Your task to perform on an android device: empty trash in the gmail app Image 0: 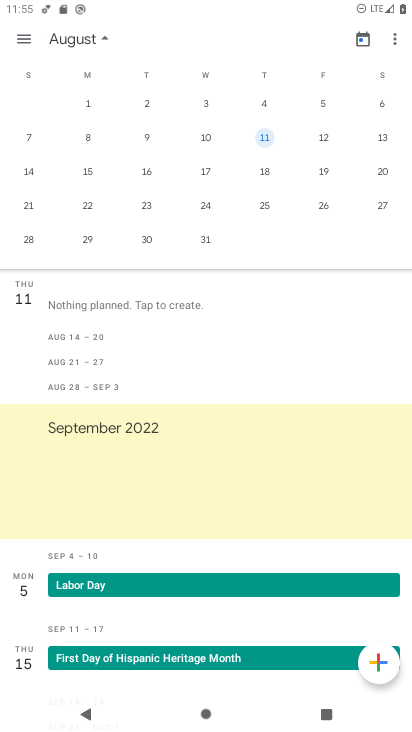
Step 0: press home button
Your task to perform on an android device: empty trash in the gmail app Image 1: 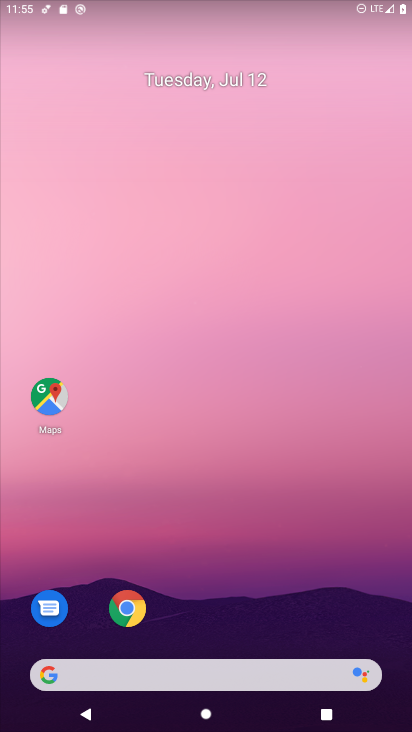
Step 1: drag from (225, 623) to (192, 267)
Your task to perform on an android device: empty trash in the gmail app Image 2: 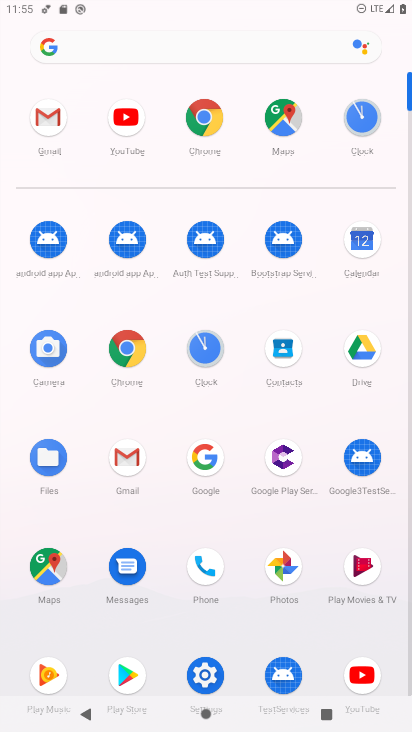
Step 2: click (36, 112)
Your task to perform on an android device: empty trash in the gmail app Image 3: 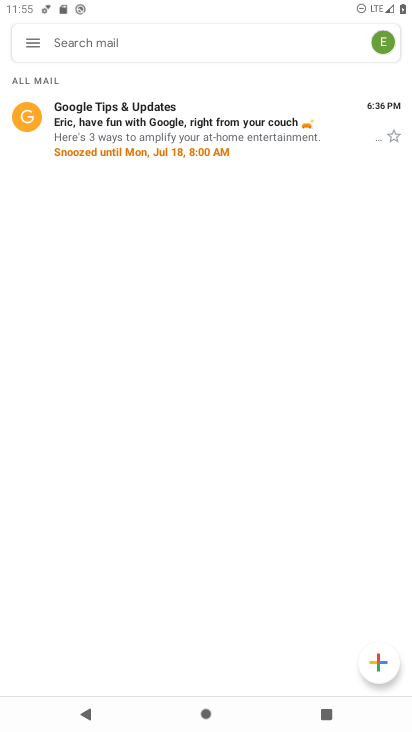
Step 3: click (35, 42)
Your task to perform on an android device: empty trash in the gmail app Image 4: 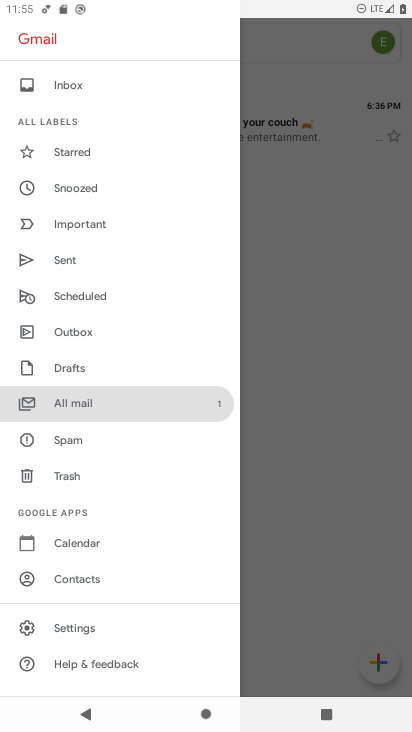
Step 4: click (66, 478)
Your task to perform on an android device: empty trash in the gmail app Image 5: 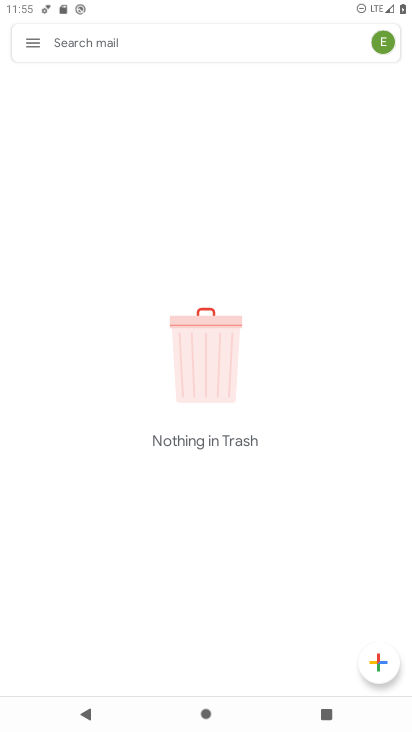
Step 5: task complete